Your task to perform on an android device: check data usage Image 0: 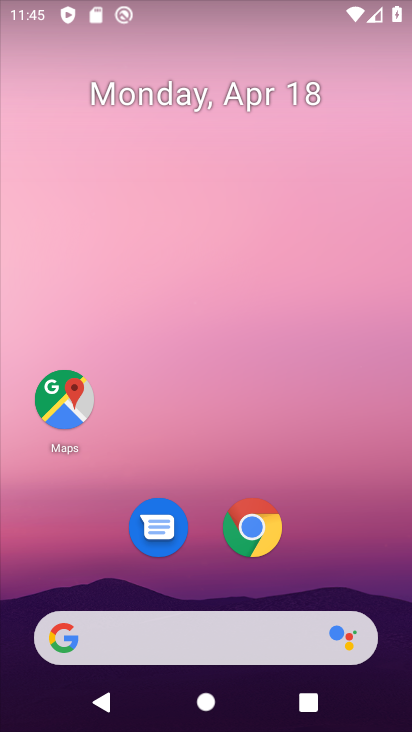
Step 0: drag from (313, 571) to (387, 61)
Your task to perform on an android device: check data usage Image 1: 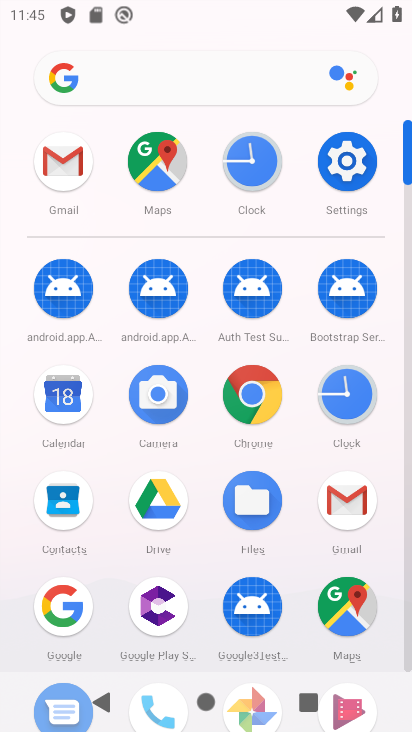
Step 1: click (342, 173)
Your task to perform on an android device: check data usage Image 2: 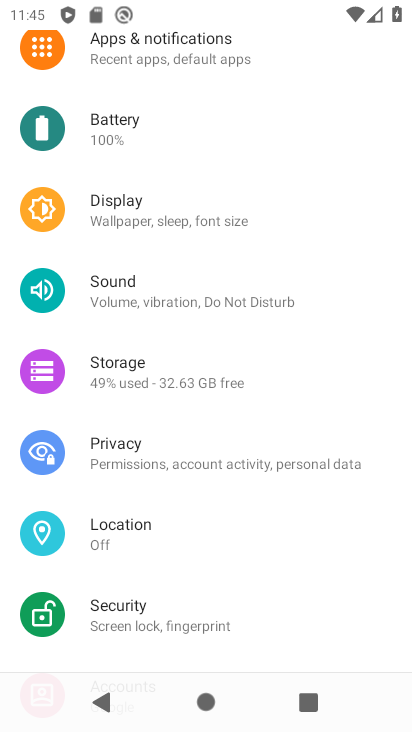
Step 2: drag from (236, 248) to (262, 333)
Your task to perform on an android device: check data usage Image 3: 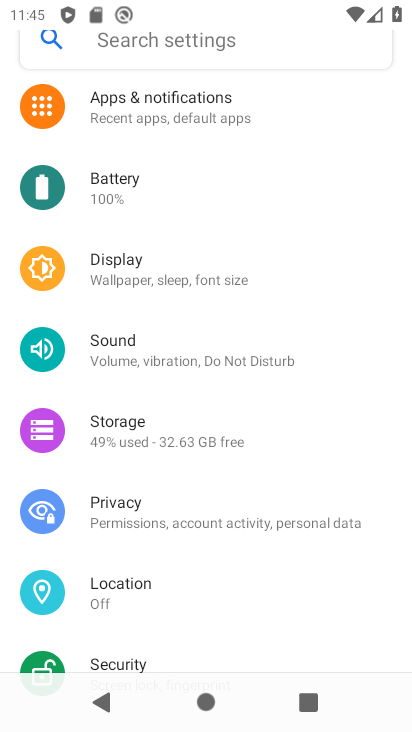
Step 3: drag from (267, 200) to (280, 308)
Your task to perform on an android device: check data usage Image 4: 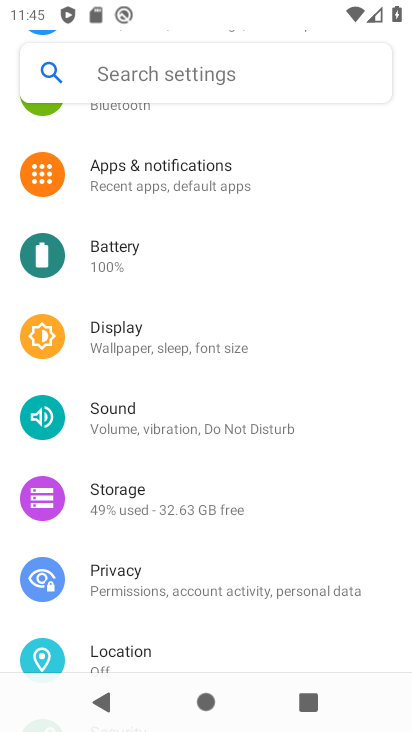
Step 4: drag from (251, 223) to (260, 344)
Your task to perform on an android device: check data usage Image 5: 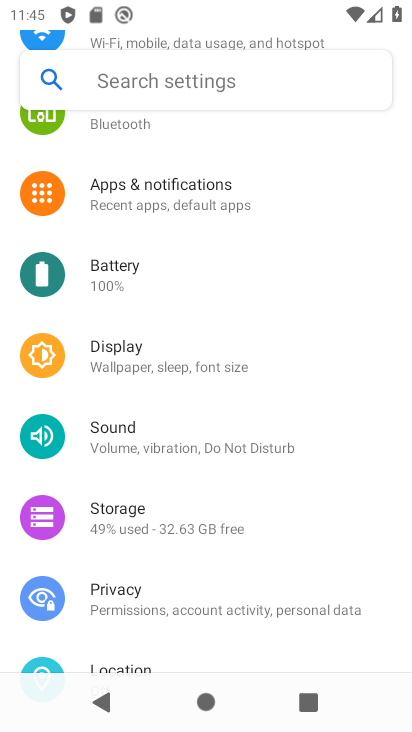
Step 5: drag from (183, 229) to (211, 348)
Your task to perform on an android device: check data usage Image 6: 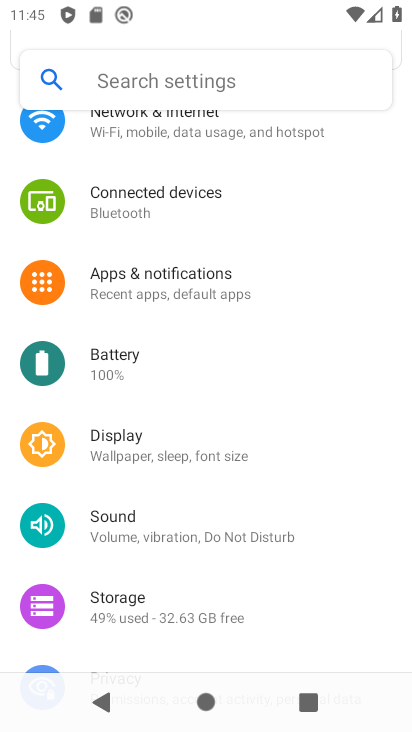
Step 6: drag from (228, 238) to (262, 365)
Your task to perform on an android device: check data usage Image 7: 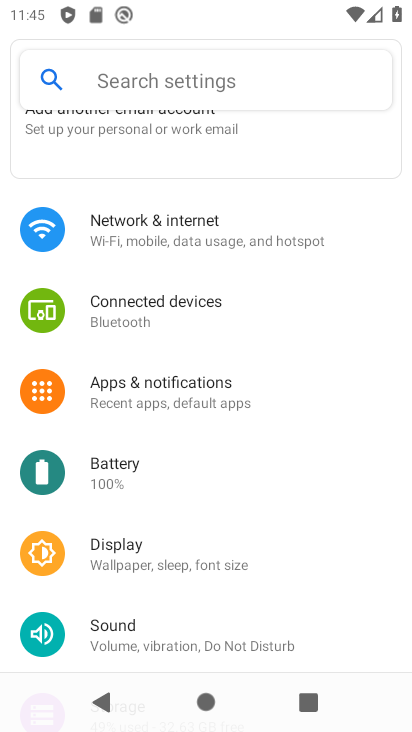
Step 7: click (239, 239)
Your task to perform on an android device: check data usage Image 8: 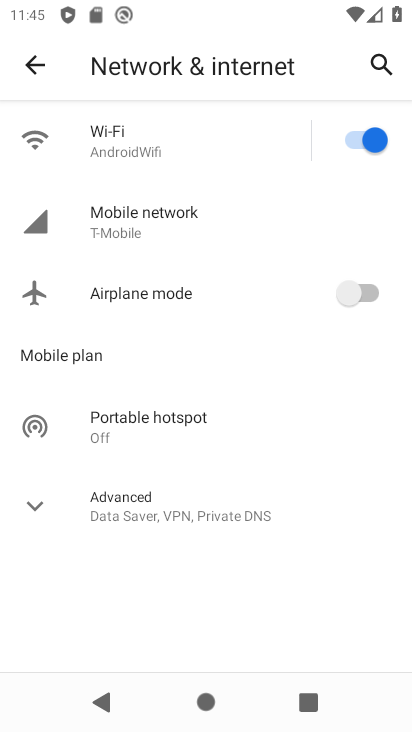
Step 8: click (164, 245)
Your task to perform on an android device: check data usage Image 9: 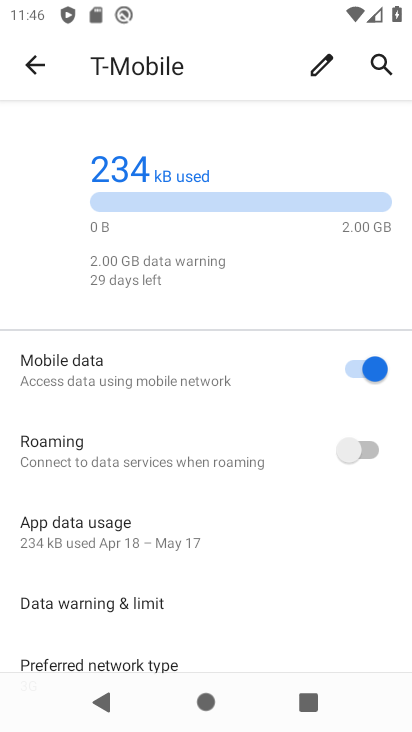
Step 9: click (136, 546)
Your task to perform on an android device: check data usage Image 10: 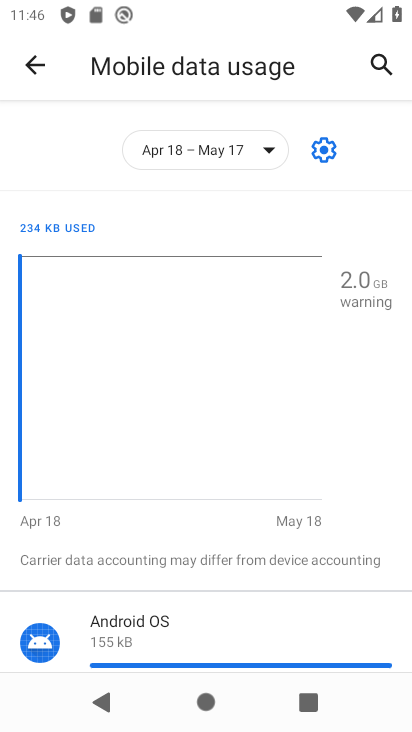
Step 10: task complete